Your task to perform on an android device: allow notifications from all sites in the chrome app Image 0: 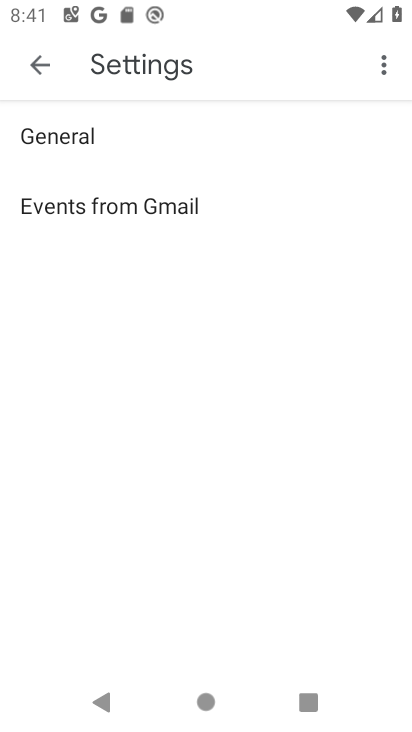
Step 0: press home button
Your task to perform on an android device: allow notifications from all sites in the chrome app Image 1: 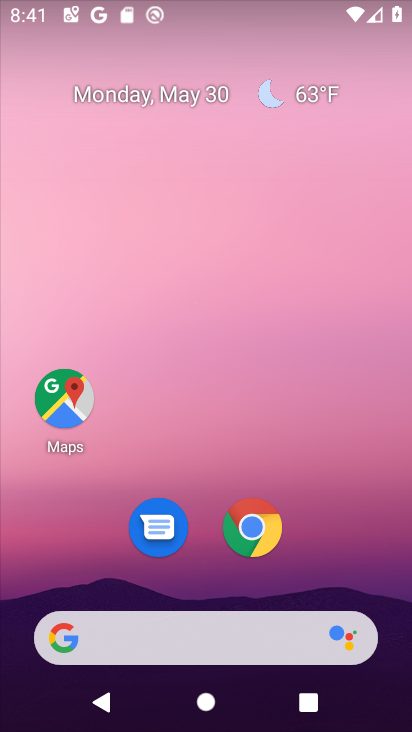
Step 1: drag from (337, 590) to (285, 212)
Your task to perform on an android device: allow notifications from all sites in the chrome app Image 2: 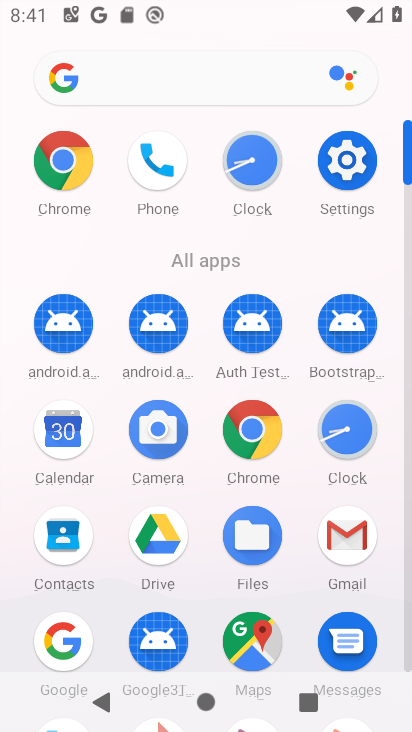
Step 2: click (243, 442)
Your task to perform on an android device: allow notifications from all sites in the chrome app Image 3: 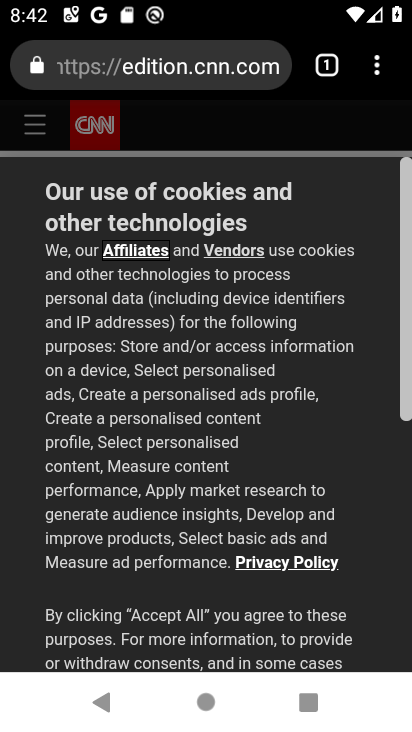
Step 3: click (371, 65)
Your task to perform on an android device: allow notifications from all sites in the chrome app Image 4: 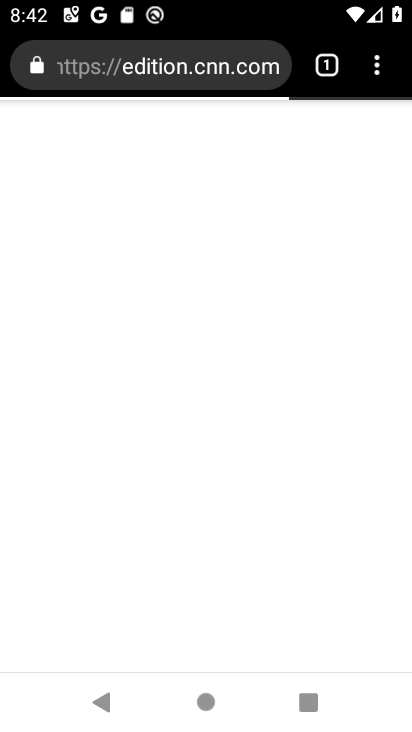
Step 4: click (366, 72)
Your task to perform on an android device: allow notifications from all sites in the chrome app Image 5: 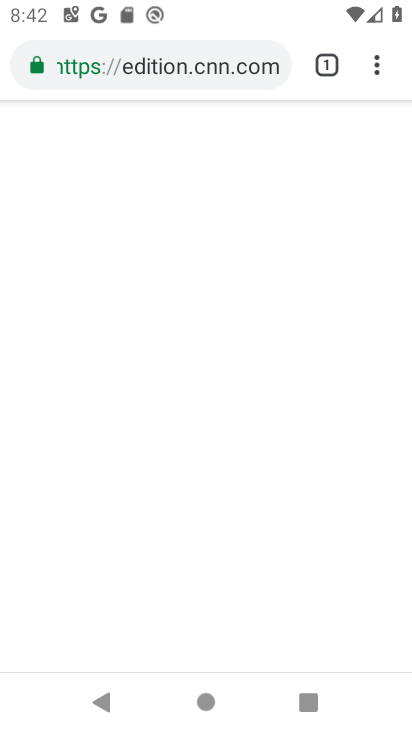
Step 5: click (388, 59)
Your task to perform on an android device: allow notifications from all sites in the chrome app Image 6: 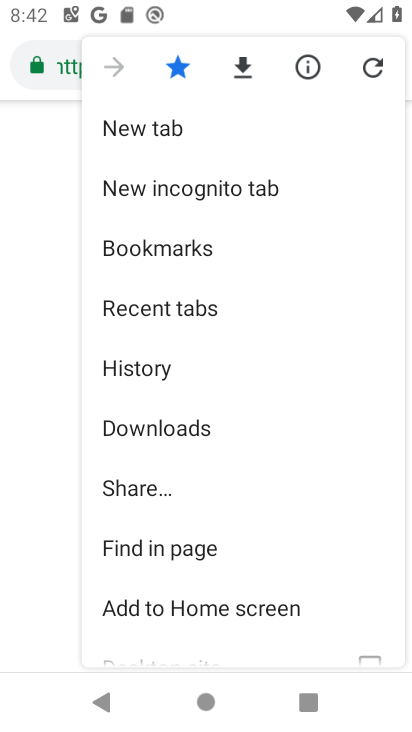
Step 6: drag from (231, 556) to (226, 224)
Your task to perform on an android device: allow notifications from all sites in the chrome app Image 7: 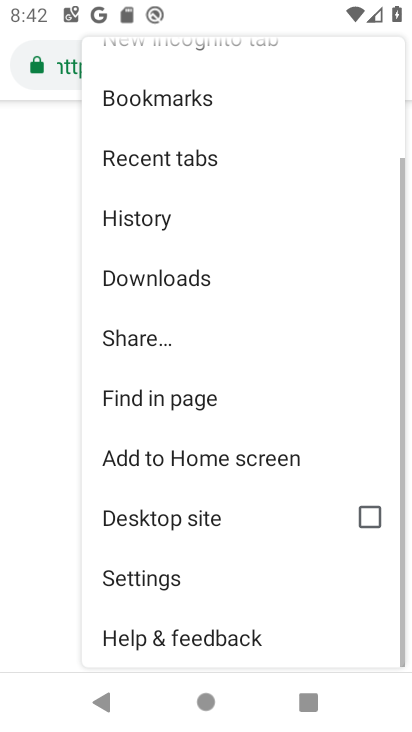
Step 7: click (178, 583)
Your task to perform on an android device: allow notifications from all sites in the chrome app Image 8: 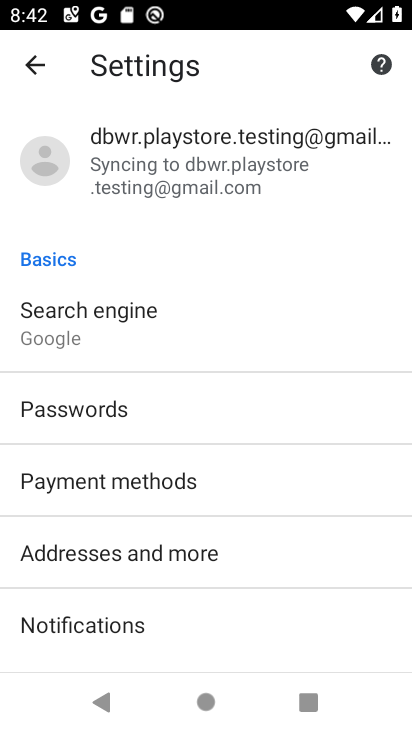
Step 8: drag from (179, 603) to (238, 194)
Your task to perform on an android device: allow notifications from all sites in the chrome app Image 9: 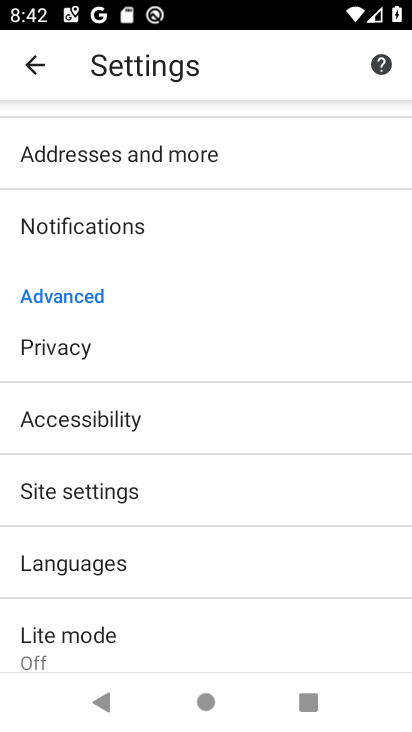
Step 9: drag from (173, 573) to (191, 439)
Your task to perform on an android device: allow notifications from all sites in the chrome app Image 10: 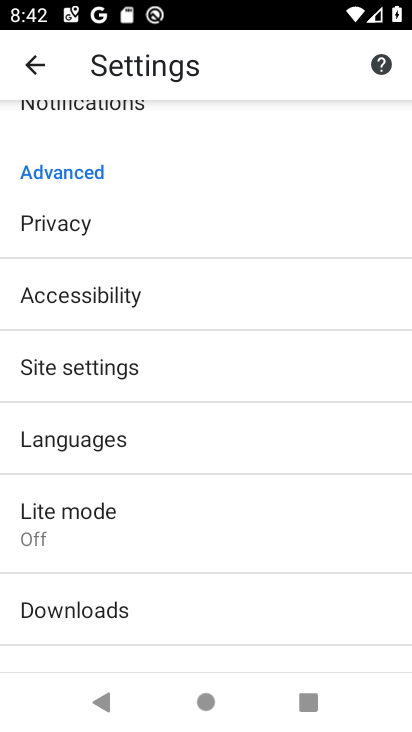
Step 10: click (141, 358)
Your task to perform on an android device: allow notifications from all sites in the chrome app Image 11: 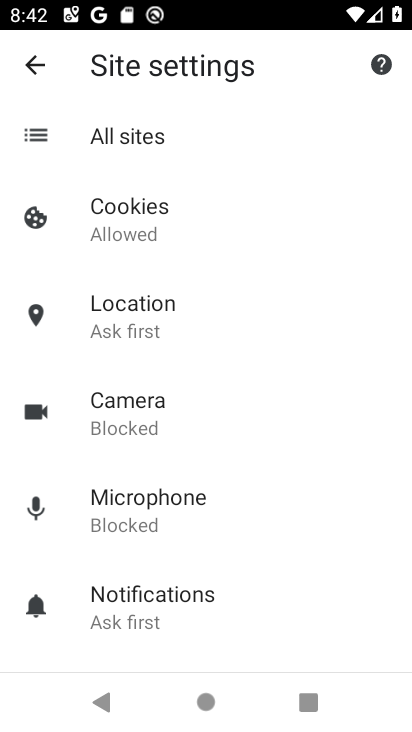
Step 11: click (134, 217)
Your task to perform on an android device: allow notifications from all sites in the chrome app Image 12: 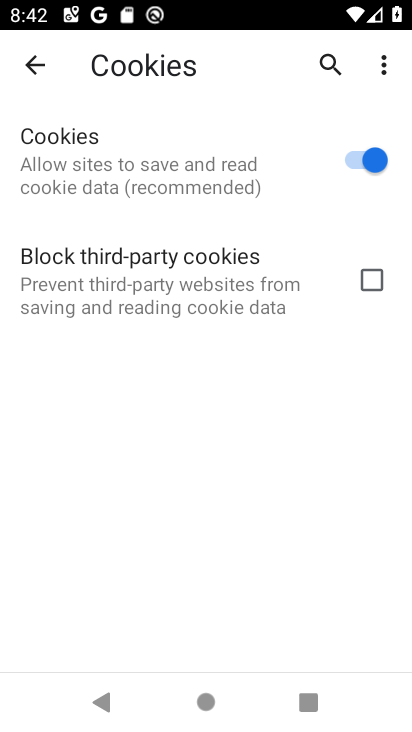
Step 12: click (37, 60)
Your task to perform on an android device: allow notifications from all sites in the chrome app Image 13: 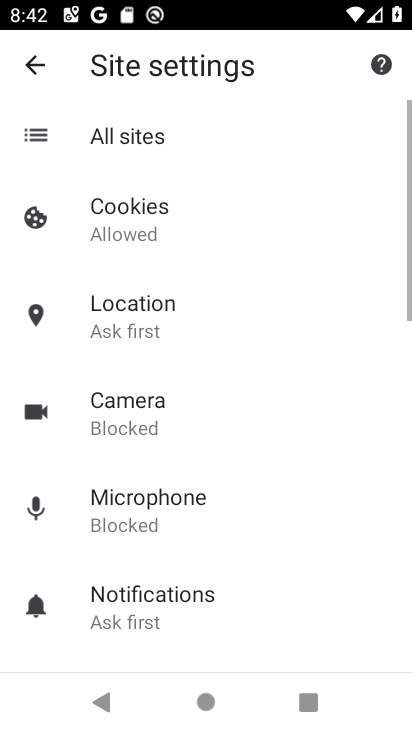
Step 13: click (162, 321)
Your task to perform on an android device: allow notifications from all sites in the chrome app Image 14: 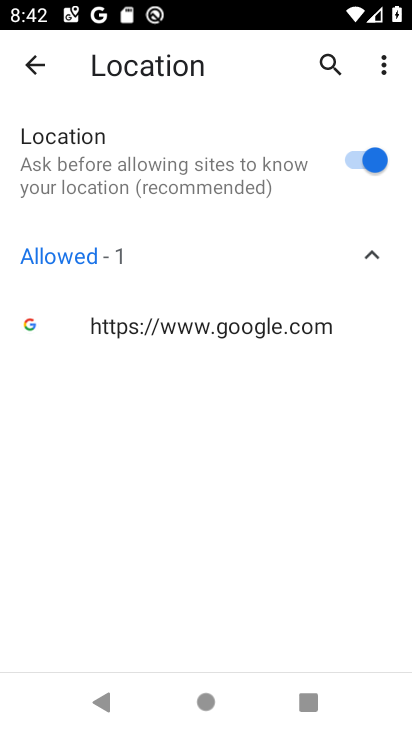
Step 14: click (40, 69)
Your task to perform on an android device: allow notifications from all sites in the chrome app Image 15: 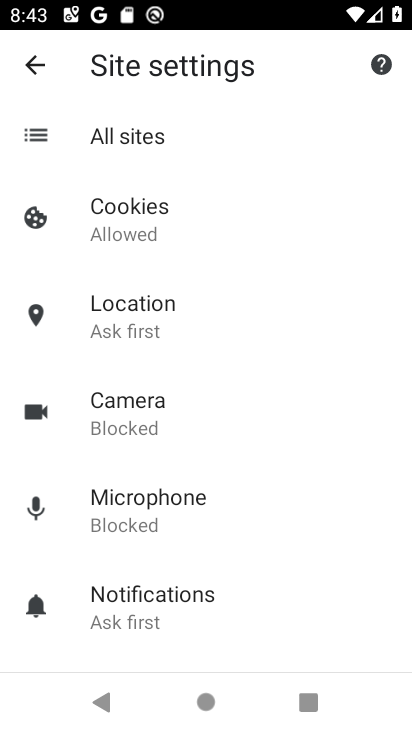
Step 15: task complete